Your task to perform on an android device: Go to ESPN.com Image 0: 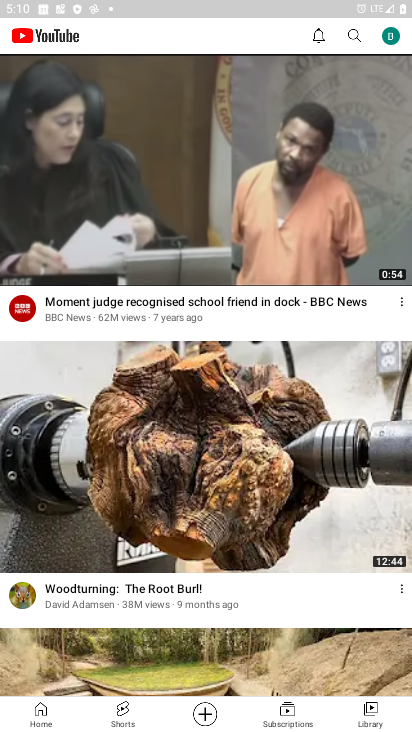
Step 0: press home button
Your task to perform on an android device: Go to ESPN.com Image 1: 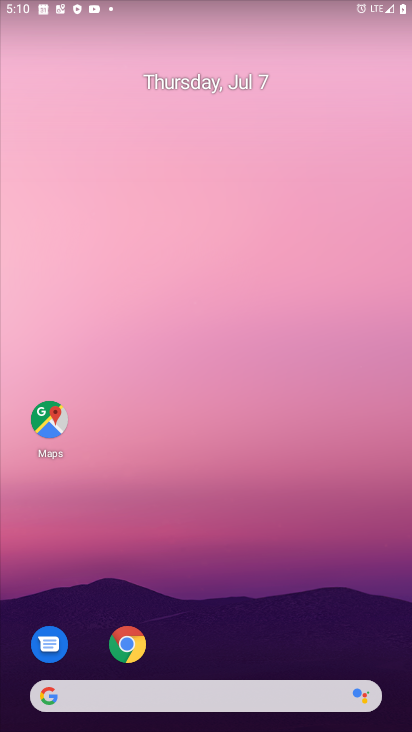
Step 1: click (127, 642)
Your task to perform on an android device: Go to ESPN.com Image 2: 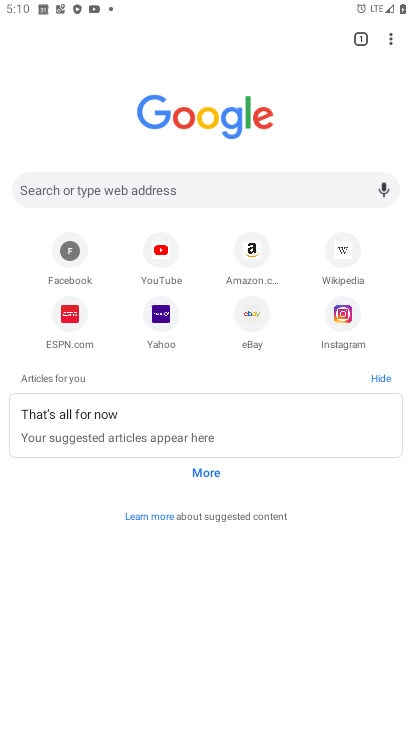
Step 2: click (136, 186)
Your task to perform on an android device: Go to ESPN.com Image 3: 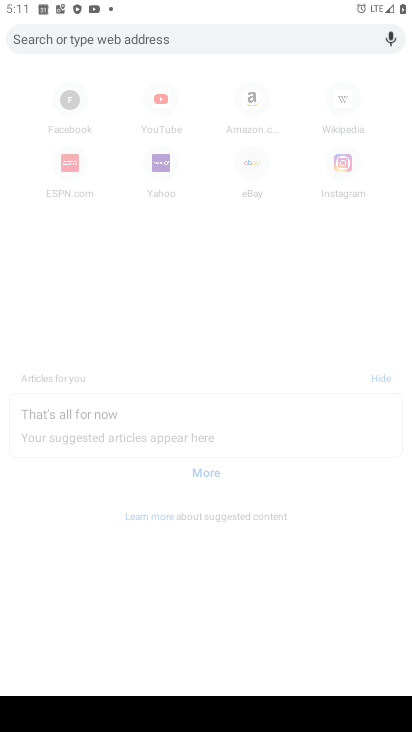
Step 3: type "ESPN.com"
Your task to perform on an android device: Go to ESPN.com Image 4: 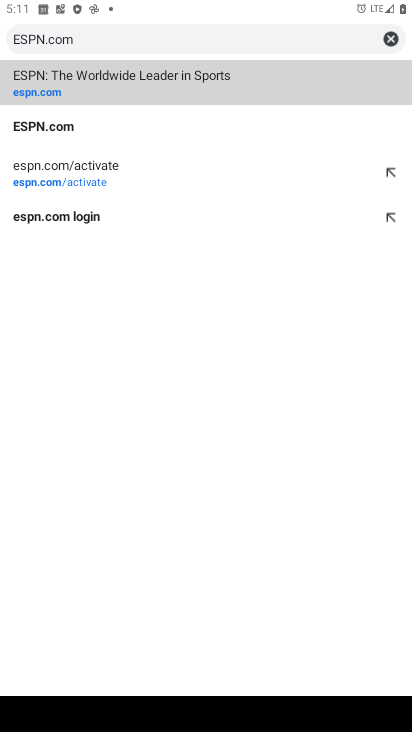
Step 4: click (51, 123)
Your task to perform on an android device: Go to ESPN.com Image 5: 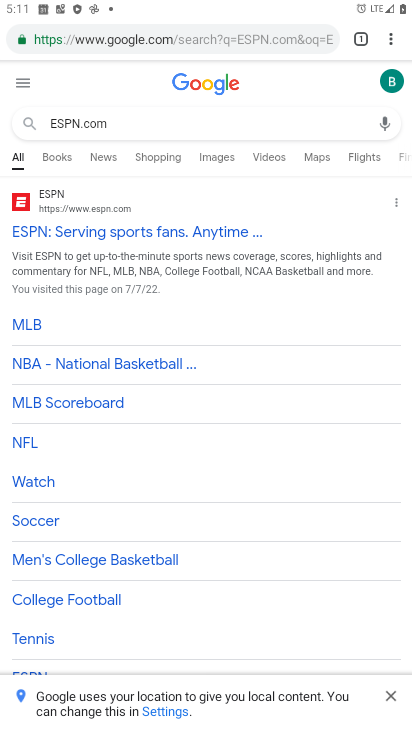
Step 5: click (99, 229)
Your task to perform on an android device: Go to ESPN.com Image 6: 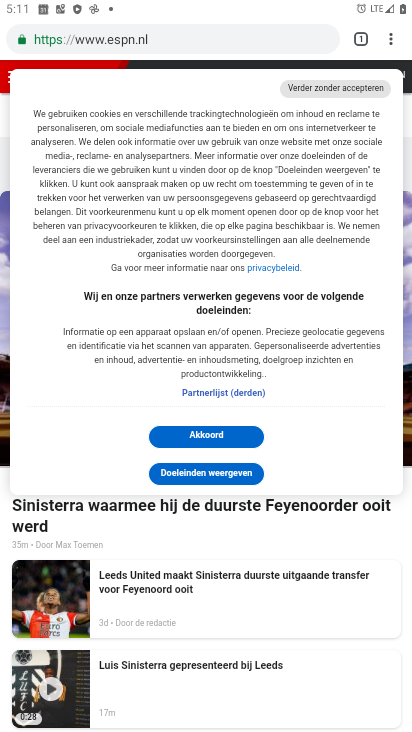
Step 6: task complete